Your task to perform on an android device: move a message to another label in the gmail app Image 0: 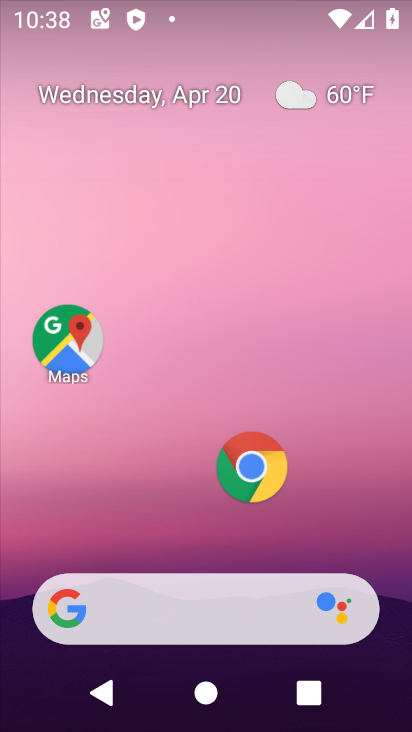
Step 0: drag from (340, 489) to (266, 100)
Your task to perform on an android device: move a message to another label in the gmail app Image 1: 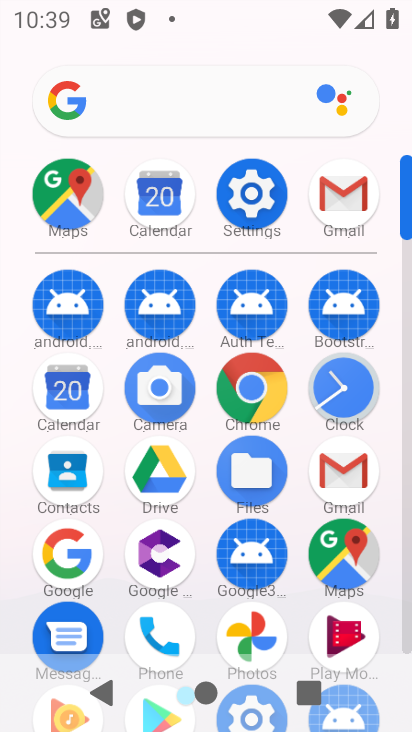
Step 1: click (333, 472)
Your task to perform on an android device: move a message to another label in the gmail app Image 2: 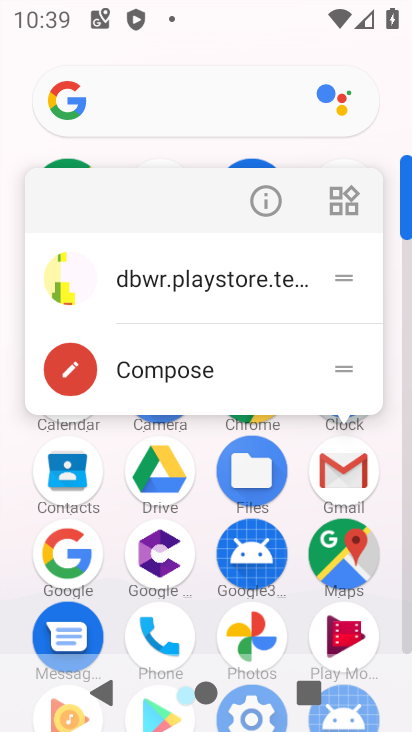
Step 2: click (326, 455)
Your task to perform on an android device: move a message to another label in the gmail app Image 3: 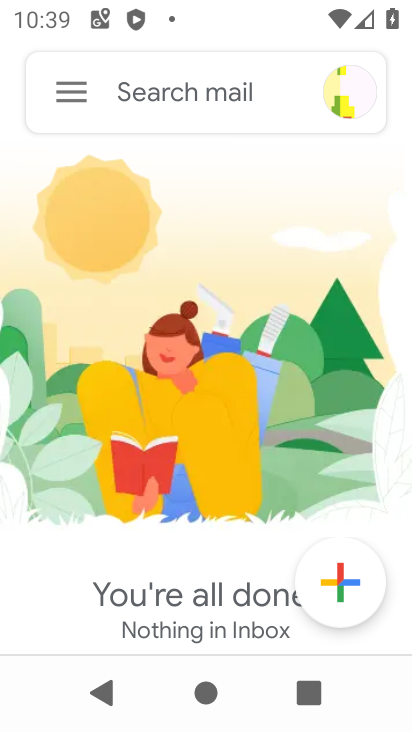
Step 3: click (77, 85)
Your task to perform on an android device: move a message to another label in the gmail app Image 4: 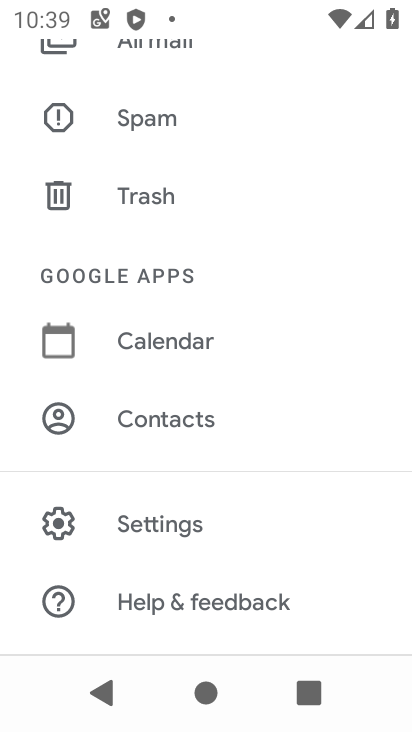
Step 4: click (168, 41)
Your task to perform on an android device: move a message to another label in the gmail app Image 5: 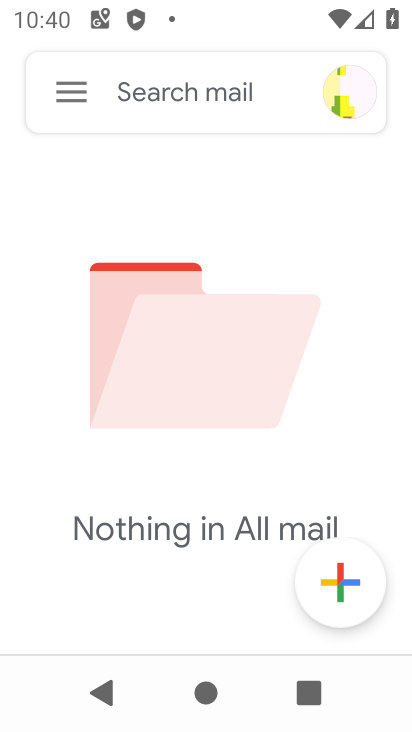
Step 5: task complete